Your task to perform on an android device: move an email to a new category in the gmail app Image 0: 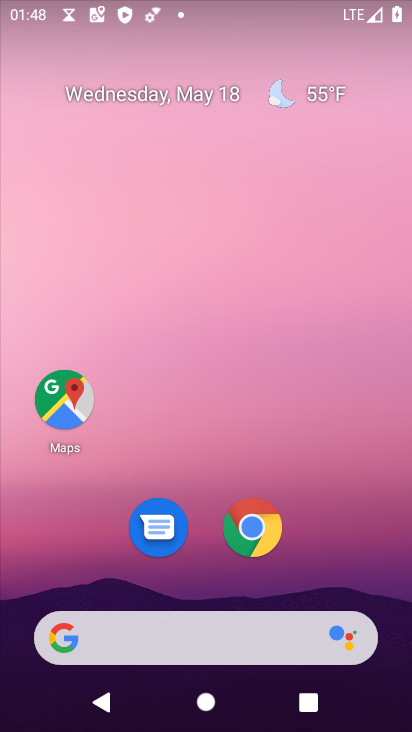
Step 0: drag from (337, 559) to (211, 65)
Your task to perform on an android device: move an email to a new category in the gmail app Image 1: 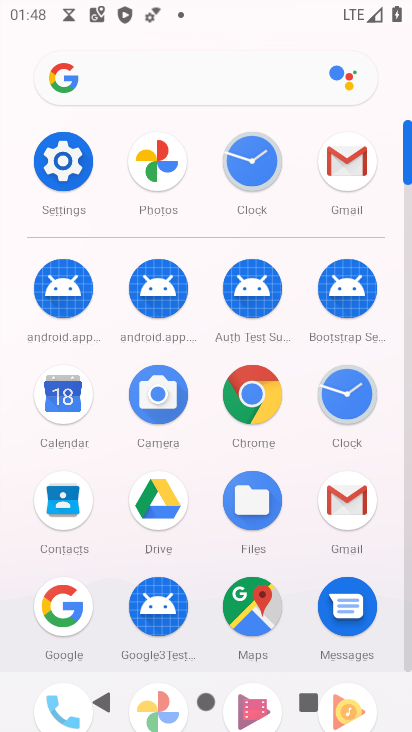
Step 1: click (342, 508)
Your task to perform on an android device: move an email to a new category in the gmail app Image 2: 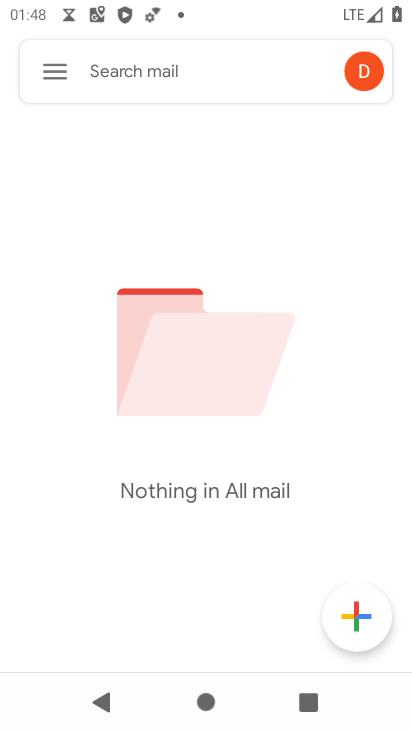
Step 2: click (68, 83)
Your task to perform on an android device: move an email to a new category in the gmail app Image 3: 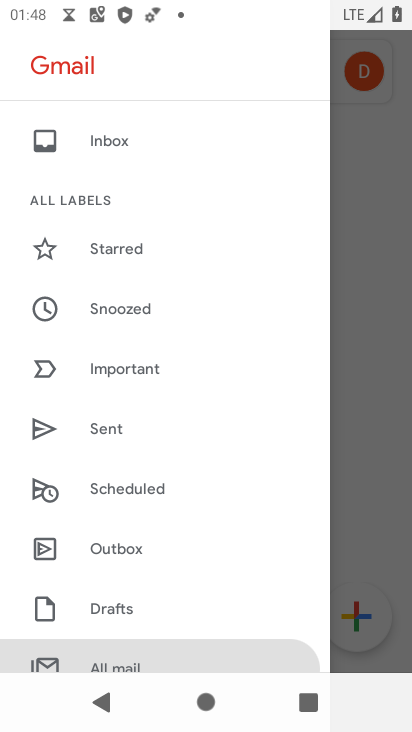
Step 3: click (152, 136)
Your task to perform on an android device: move an email to a new category in the gmail app Image 4: 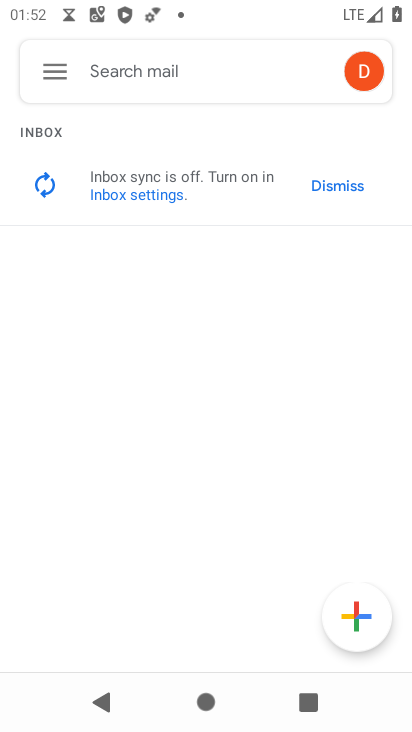
Step 4: task complete